Your task to perform on an android device: Open Chrome and go to the settings page Image 0: 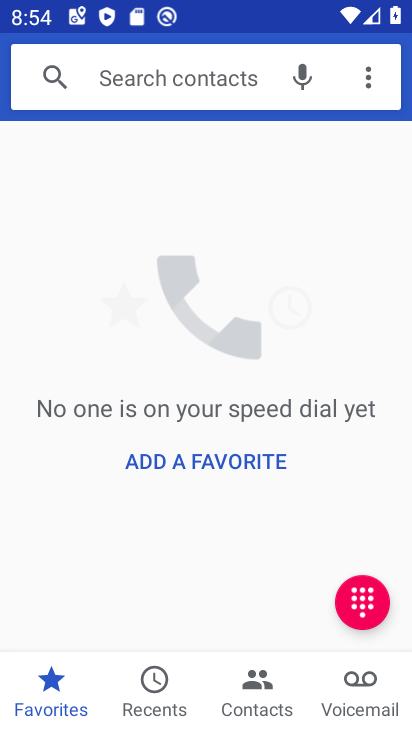
Step 0: press home button
Your task to perform on an android device: Open Chrome and go to the settings page Image 1: 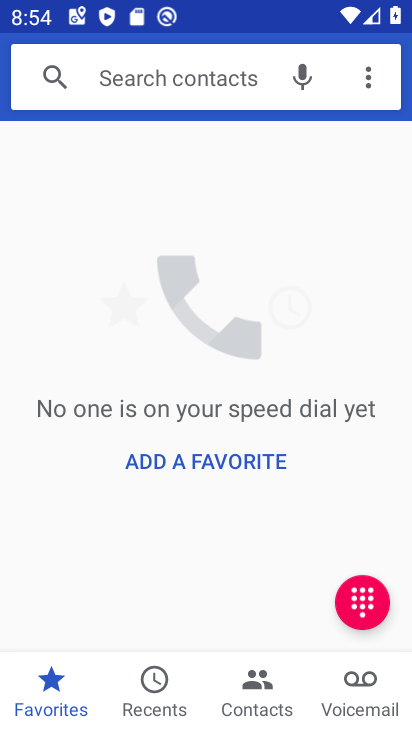
Step 1: press home button
Your task to perform on an android device: Open Chrome and go to the settings page Image 2: 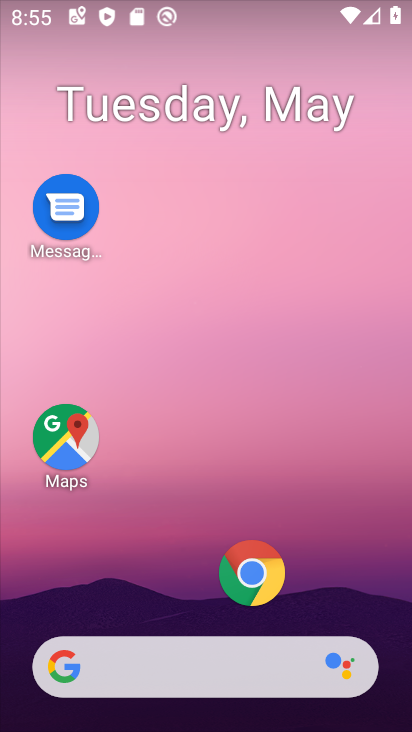
Step 2: drag from (352, 638) to (130, 99)
Your task to perform on an android device: Open Chrome and go to the settings page Image 3: 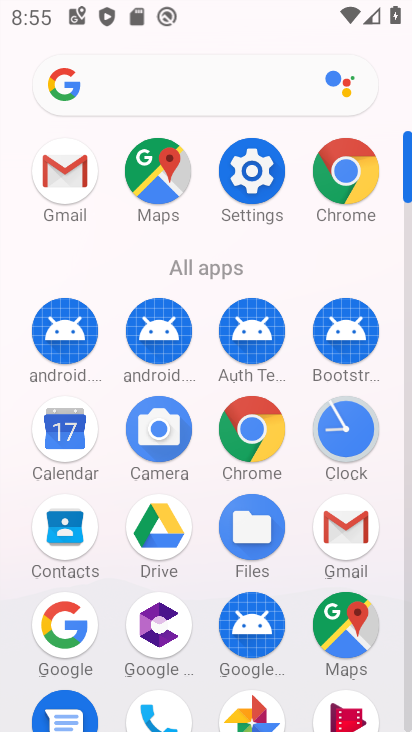
Step 3: click (350, 184)
Your task to perform on an android device: Open Chrome and go to the settings page Image 4: 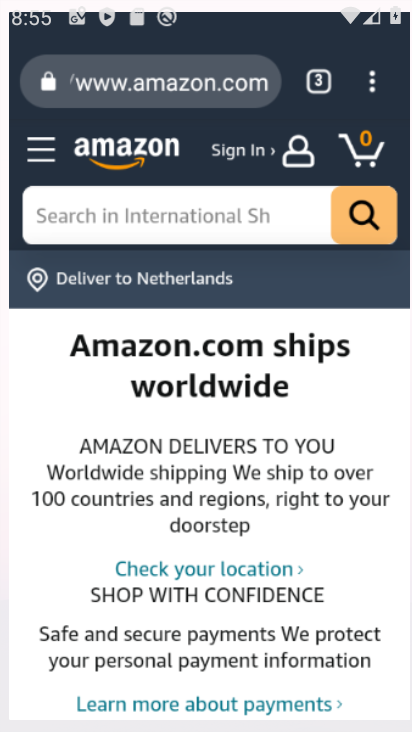
Step 4: click (349, 184)
Your task to perform on an android device: Open Chrome and go to the settings page Image 5: 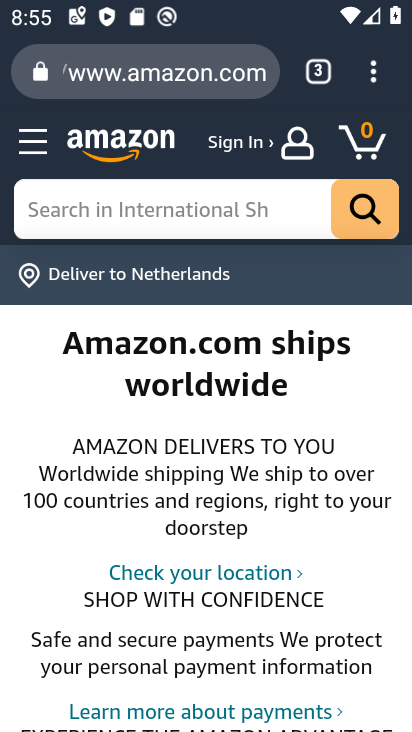
Step 5: task complete